Your task to perform on an android device: Show me recent news Image 0: 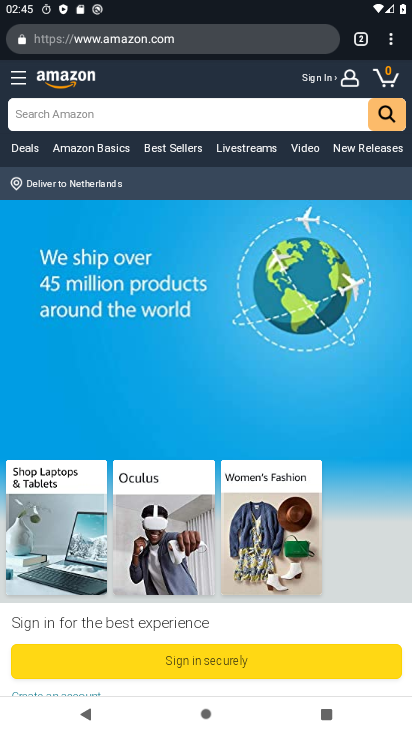
Step 0: press home button
Your task to perform on an android device: Show me recent news Image 1: 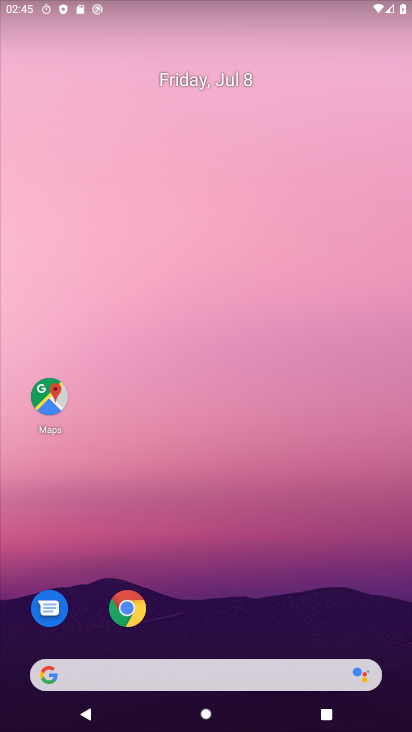
Step 1: drag from (265, 625) to (368, 105)
Your task to perform on an android device: Show me recent news Image 2: 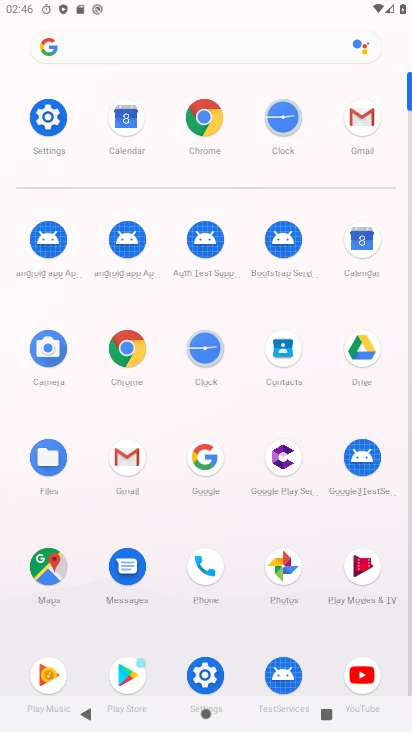
Step 2: click (209, 451)
Your task to perform on an android device: Show me recent news Image 3: 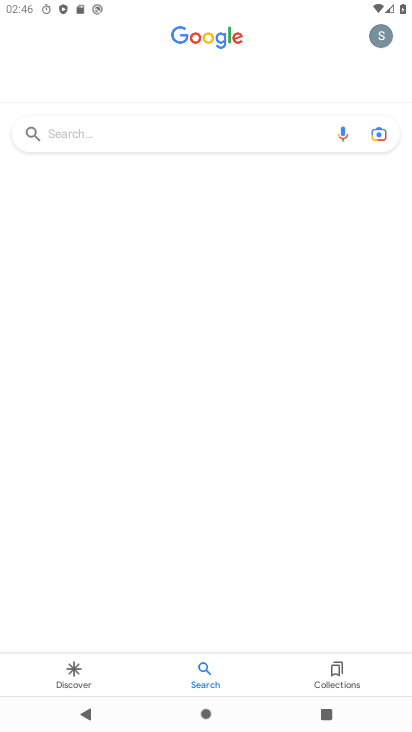
Step 3: click (135, 135)
Your task to perform on an android device: Show me recent news Image 4: 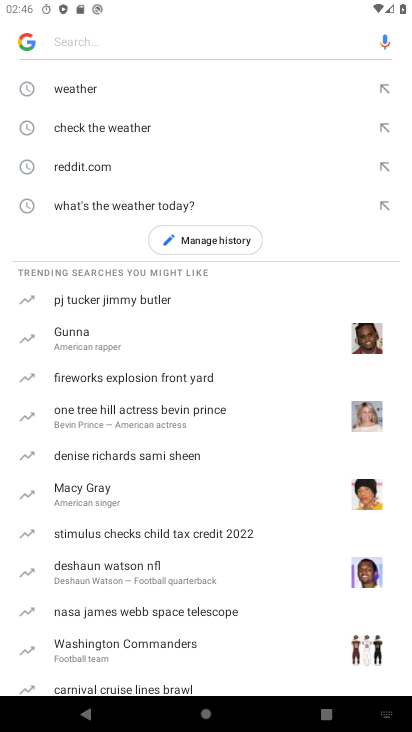
Step 4: type "recent news"
Your task to perform on an android device: Show me recent news Image 5: 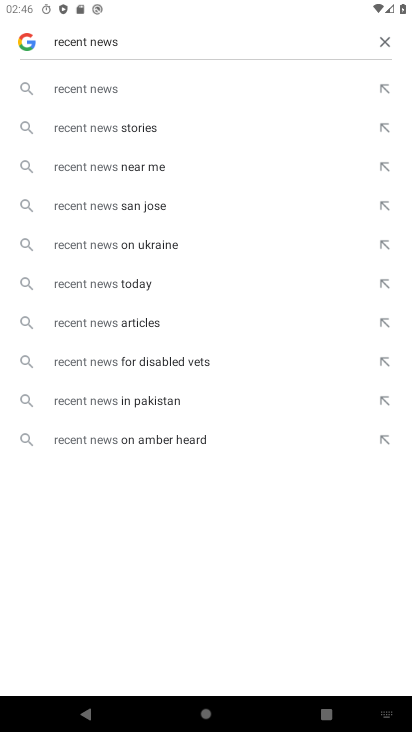
Step 5: click (93, 96)
Your task to perform on an android device: Show me recent news Image 6: 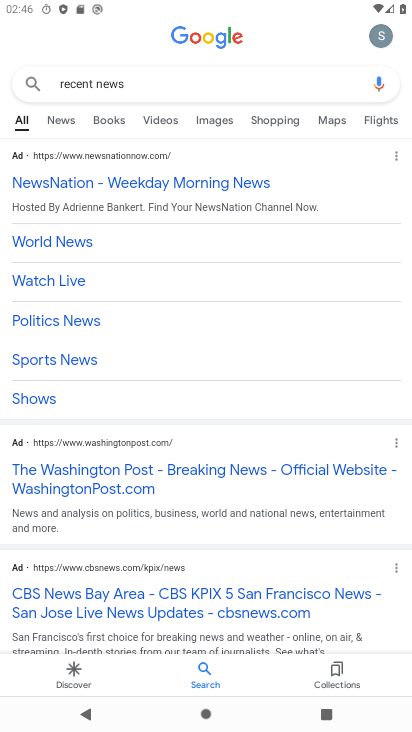
Step 6: task complete